Your task to perform on an android device: change timer sound Image 0: 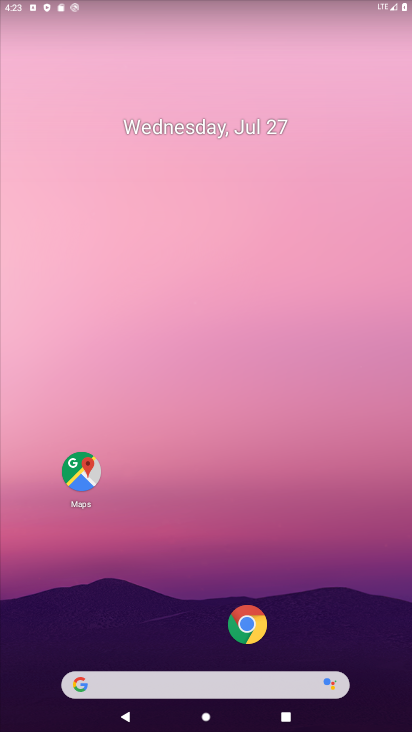
Step 0: drag from (166, 601) to (159, 360)
Your task to perform on an android device: change timer sound Image 1: 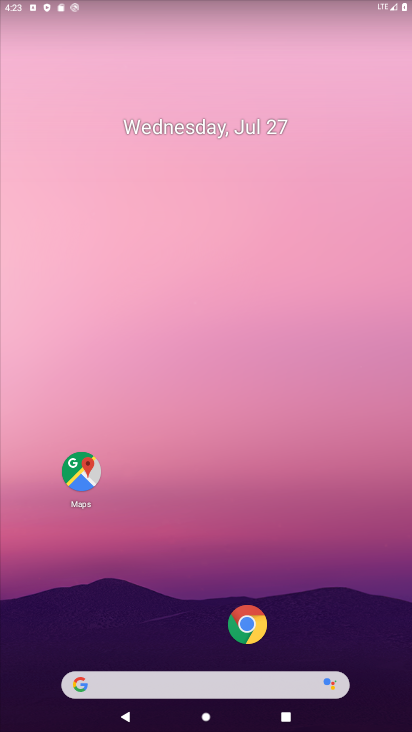
Step 1: drag from (224, 639) to (223, 52)
Your task to perform on an android device: change timer sound Image 2: 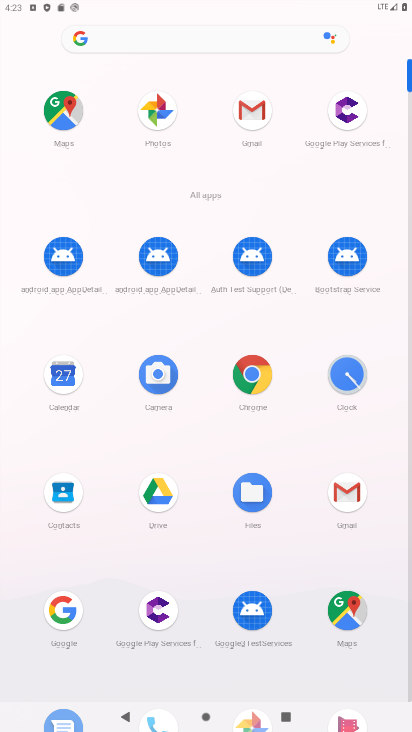
Step 2: drag from (217, 657) to (181, 260)
Your task to perform on an android device: change timer sound Image 3: 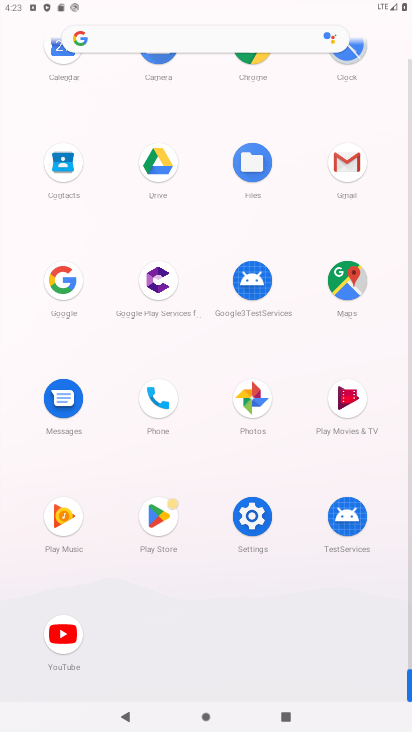
Step 3: click (258, 513)
Your task to perform on an android device: change timer sound Image 4: 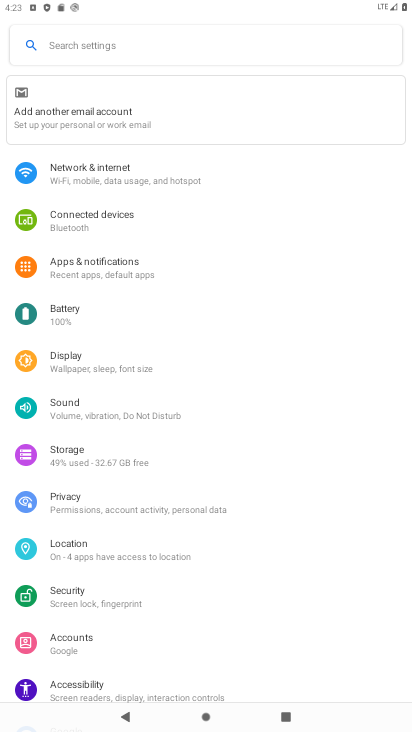
Step 4: click (113, 417)
Your task to perform on an android device: change timer sound Image 5: 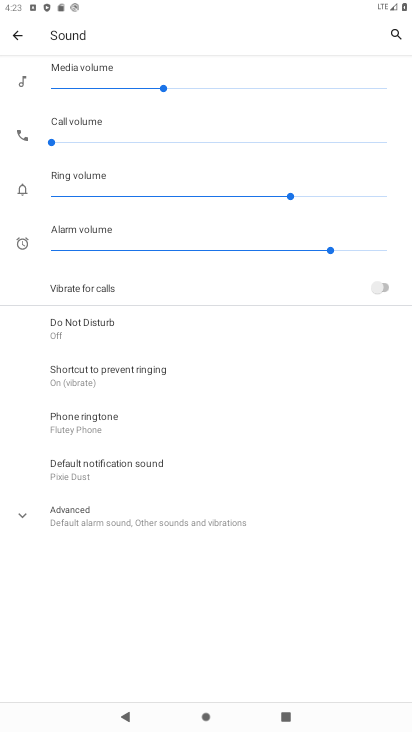
Step 5: task complete